Your task to perform on an android device: turn on location history Image 0: 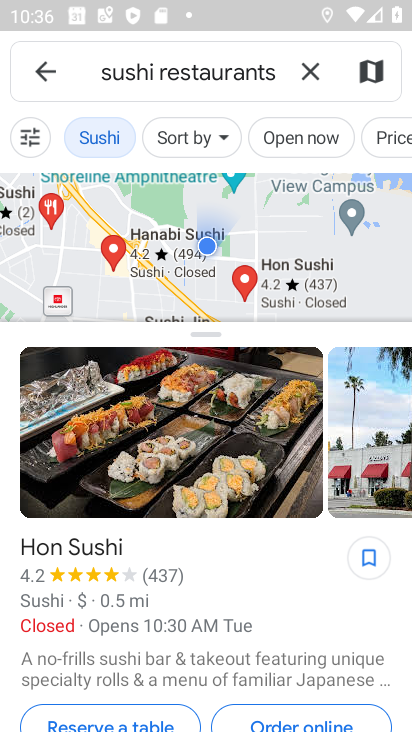
Step 0: press home button
Your task to perform on an android device: turn on location history Image 1: 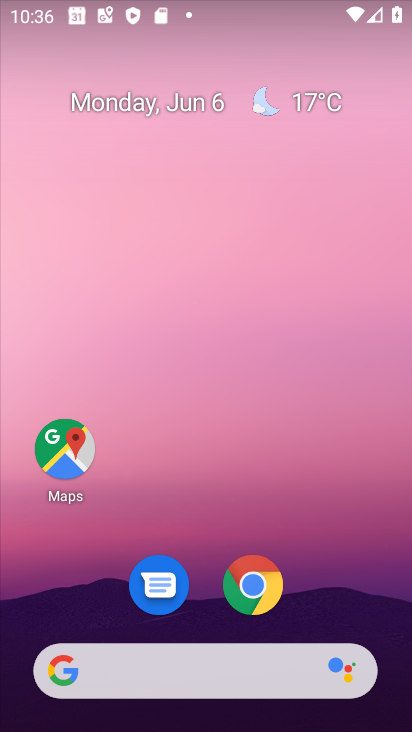
Step 1: drag from (241, 506) to (282, 67)
Your task to perform on an android device: turn on location history Image 2: 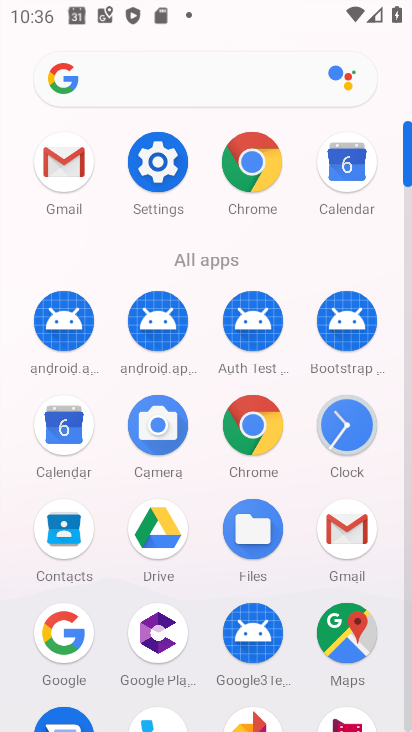
Step 2: click (159, 178)
Your task to perform on an android device: turn on location history Image 3: 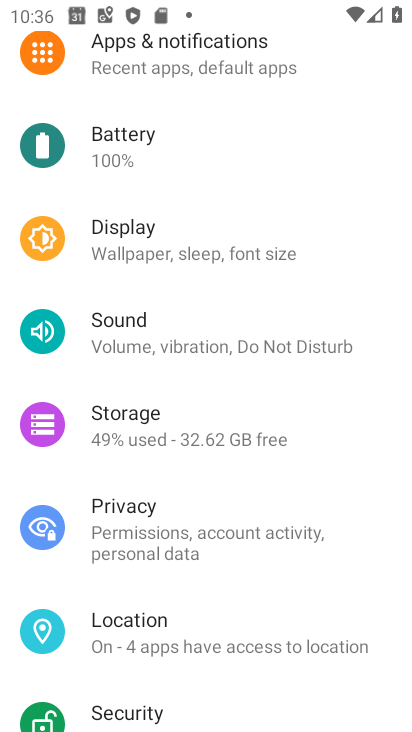
Step 3: click (197, 633)
Your task to perform on an android device: turn on location history Image 4: 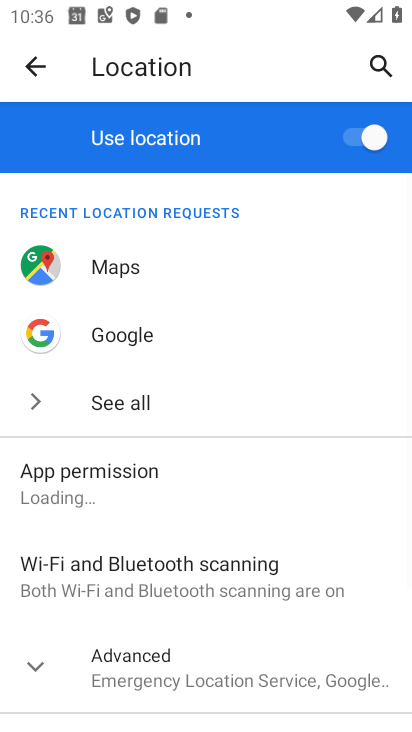
Step 4: click (40, 666)
Your task to perform on an android device: turn on location history Image 5: 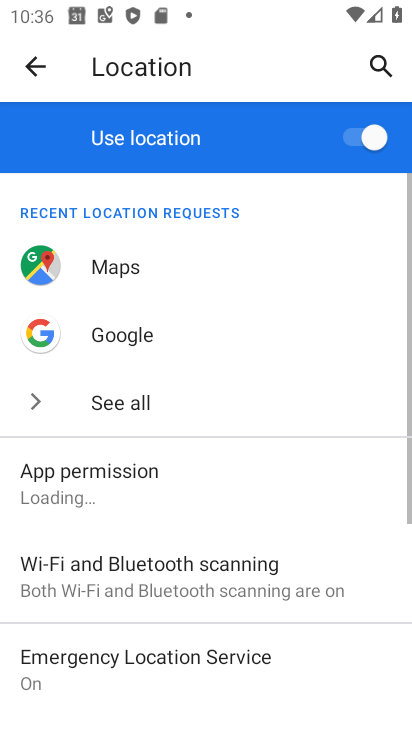
Step 5: drag from (226, 580) to (278, 81)
Your task to perform on an android device: turn on location history Image 6: 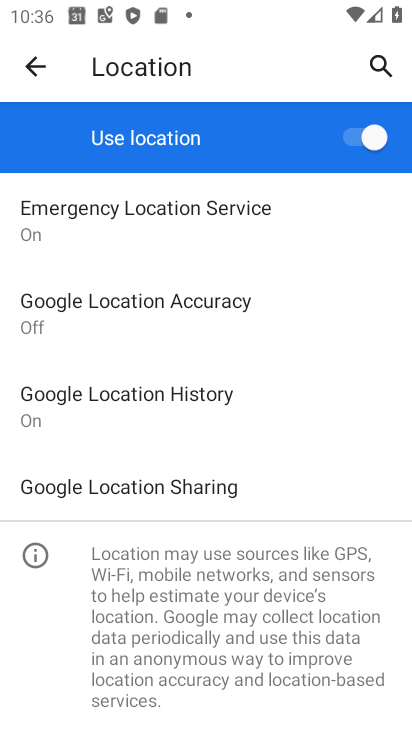
Step 6: click (200, 388)
Your task to perform on an android device: turn on location history Image 7: 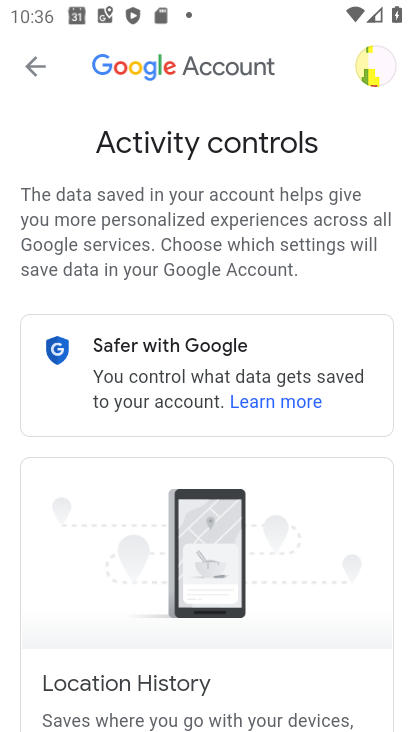
Step 7: drag from (277, 564) to (293, 131)
Your task to perform on an android device: turn on location history Image 8: 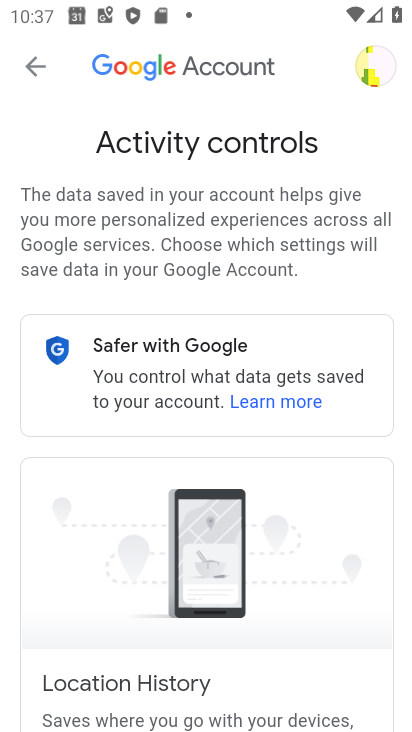
Step 8: drag from (304, 534) to (294, 227)
Your task to perform on an android device: turn on location history Image 9: 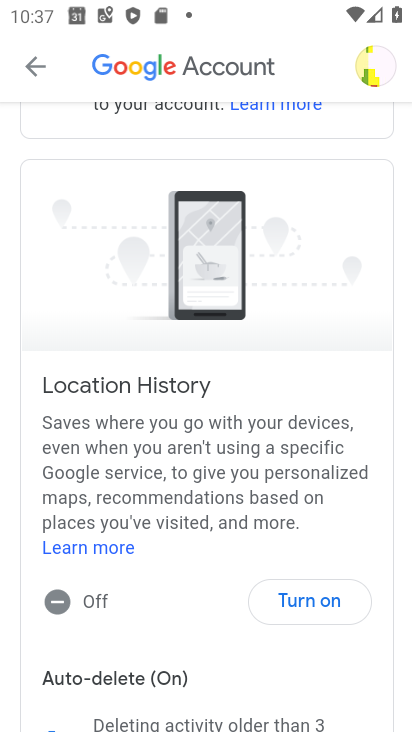
Step 9: click (310, 600)
Your task to perform on an android device: turn on location history Image 10: 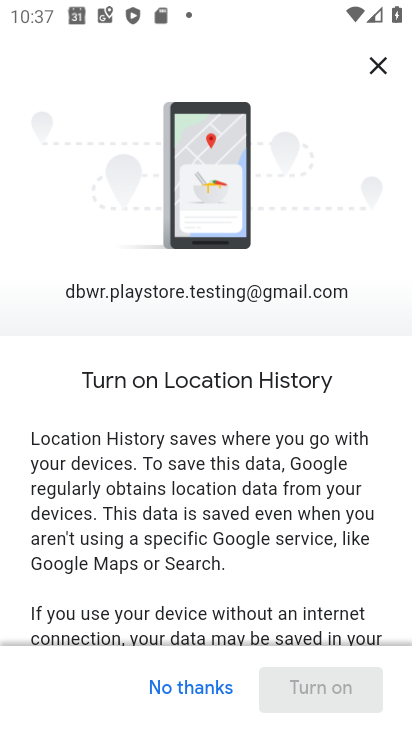
Step 10: drag from (289, 563) to (248, 94)
Your task to perform on an android device: turn on location history Image 11: 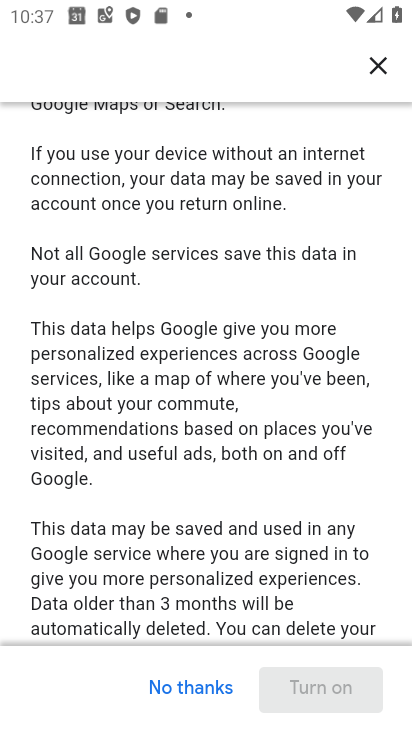
Step 11: drag from (262, 498) to (233, 61)
Your task to perform on an android device: turn on location history Image 12: 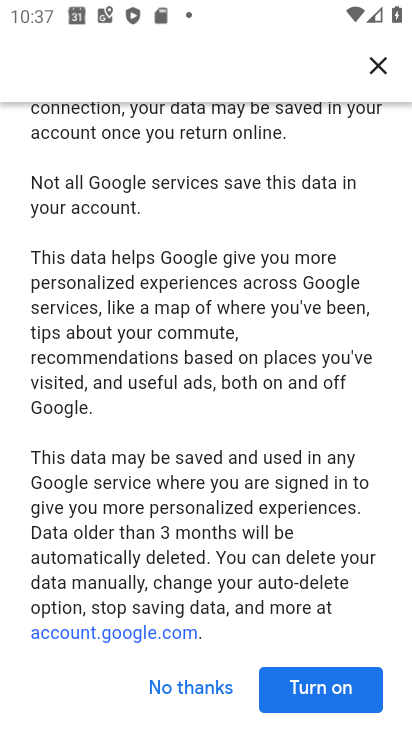
Step 12: click (351, 690)
Your task to perform on an android device: turn on location history Image 13: 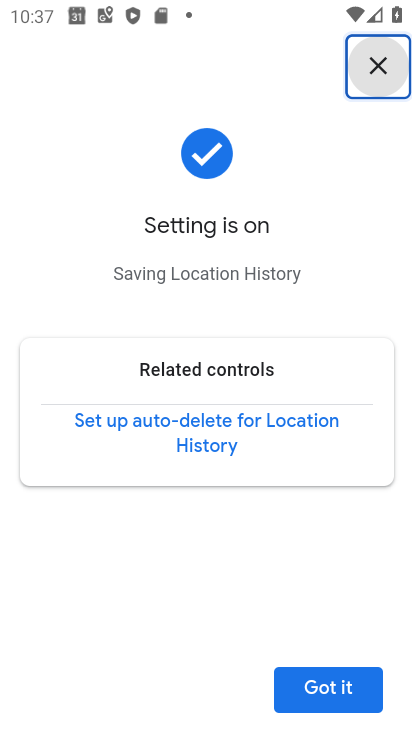
Step 13: click (349, 687)
Your task to perform on an android device: turn on location history Image 14: 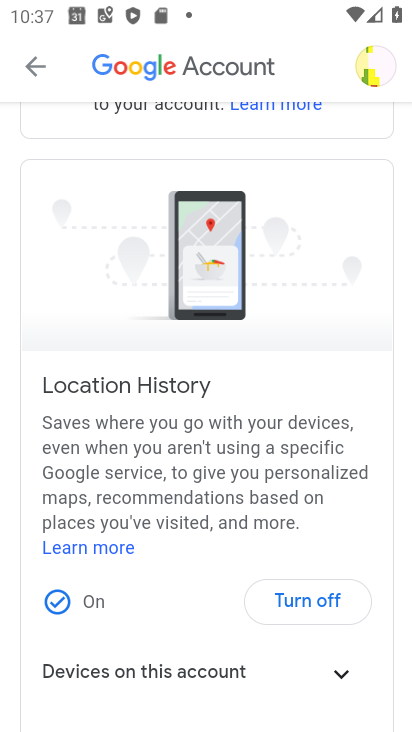
Step 14: task complete